Your task to perform on an android device: Search for seafood restaurants on Google Maps Image 0: 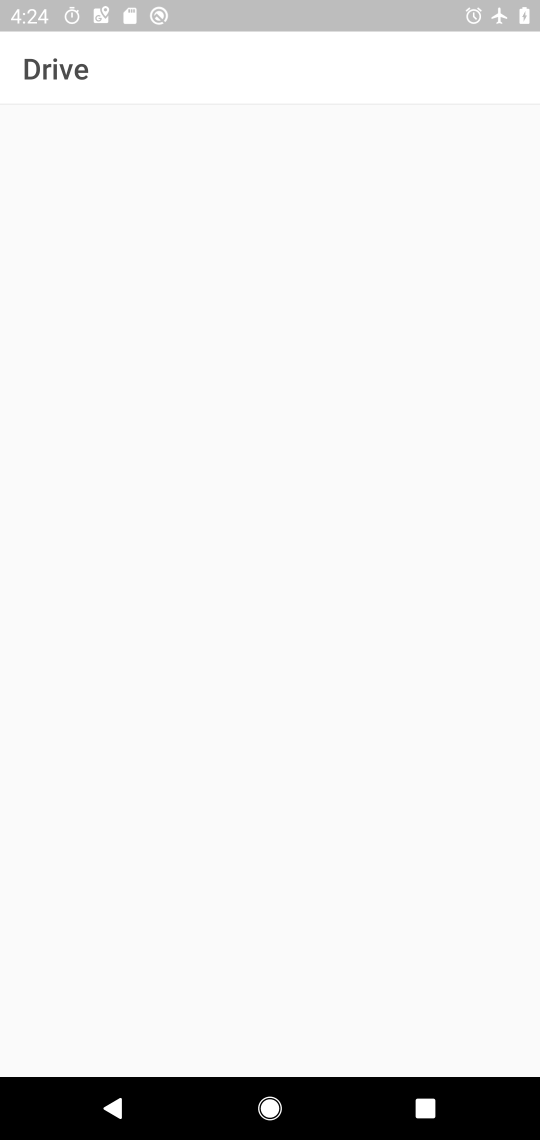
Step 0: press home button
Your task to perform on an android device: Search for seafood restaurants on Google Maps Image 1: 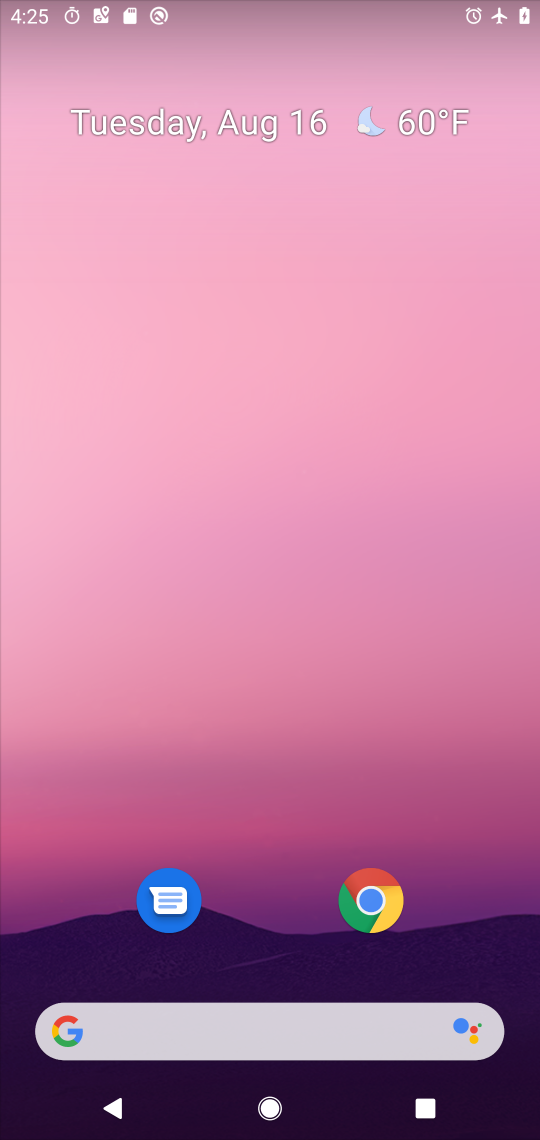
Step 1: drag from (287, 736) to (265, 84)
Your task to perform on an android device: Search for seafood restaurants on Google Maps Image 2: 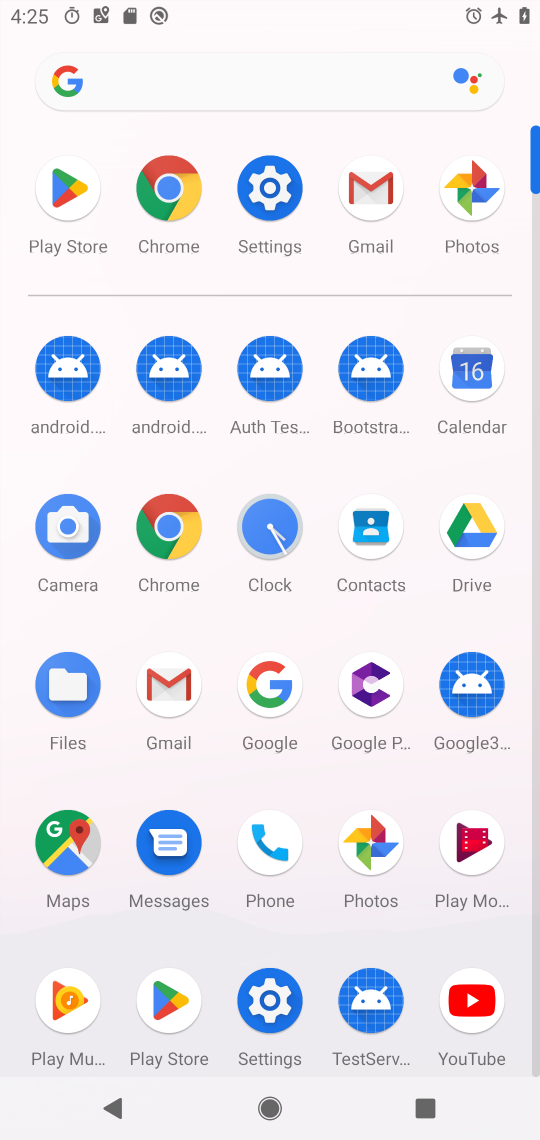
Step 2: click (62, 844)
Your task to perform on an android device: Search for seafood restaurants on Google Maps Image 3: 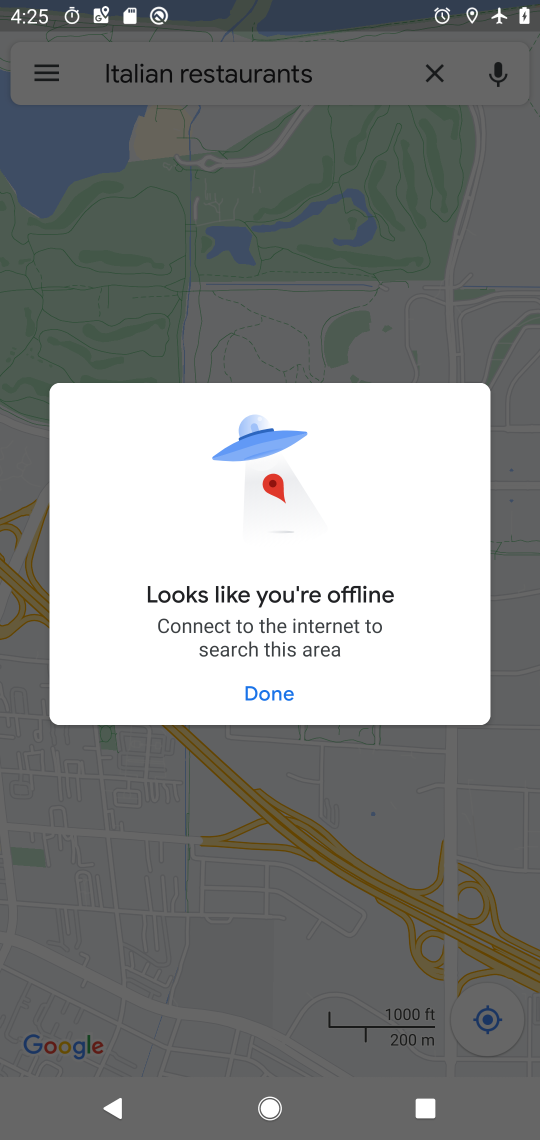
Step 3: click (270, 695)
Your task to perform on an android device: Search for seafood restaurants on Google Maps Image 4: 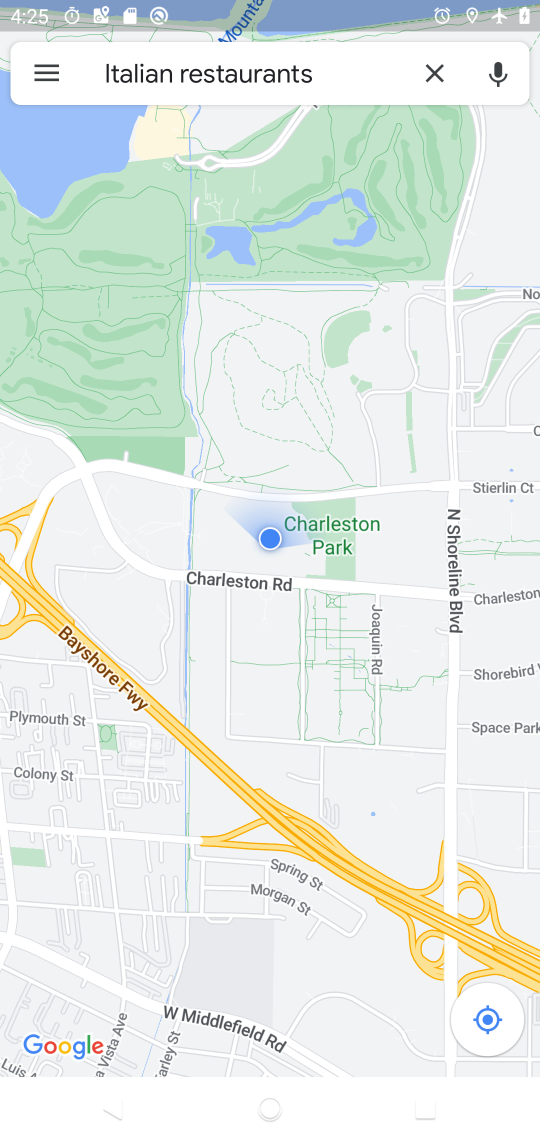
Step 4: task complete